Your task to perform on an android device: uninstall "YouTube Kids" Image 0: 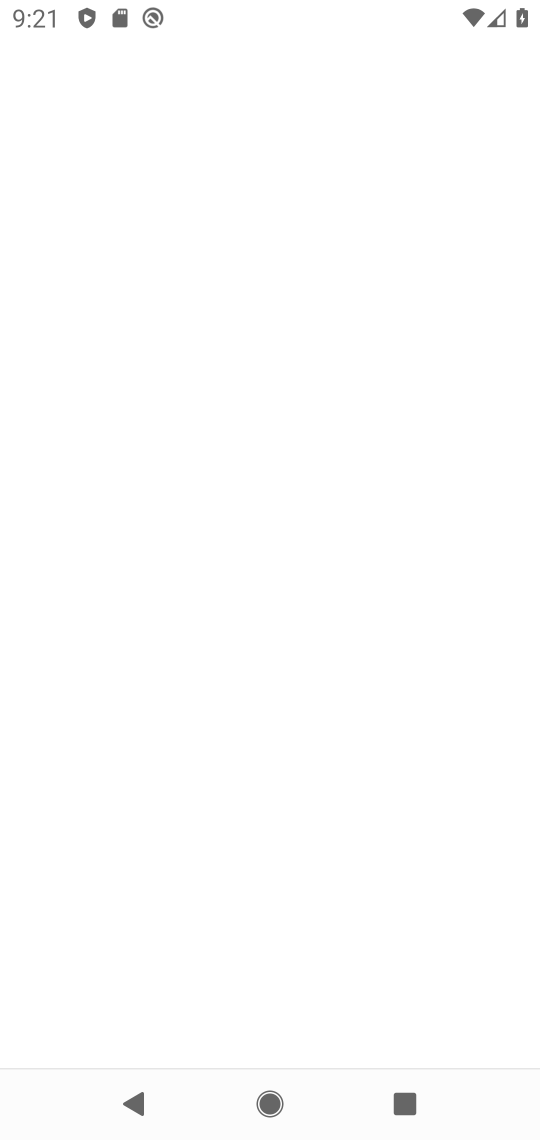
Step 0: press home button
Your task to perform on an android device: uninstall "YouTube Kids" Image 1: 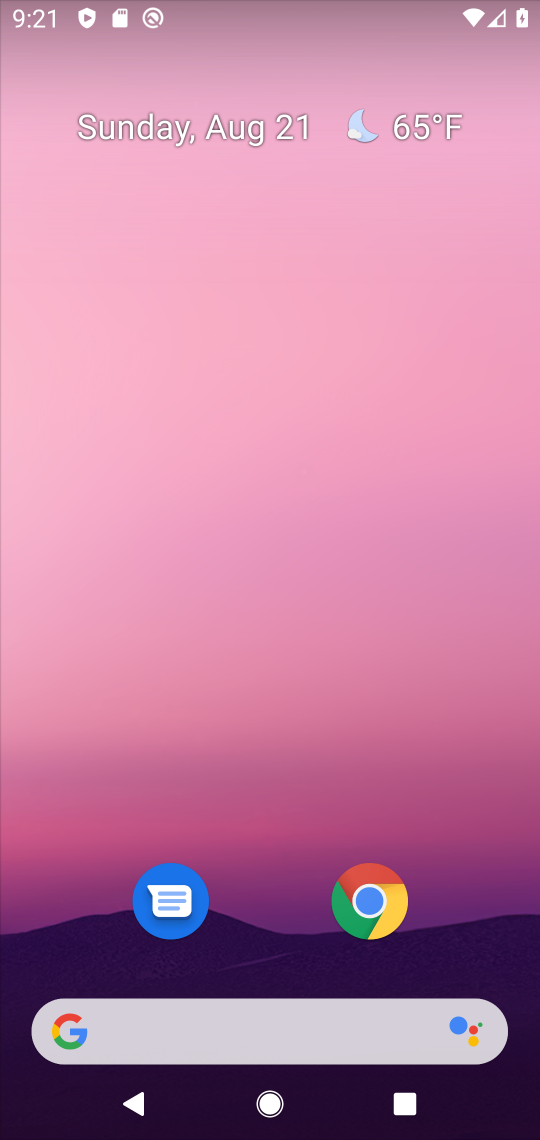
Step 1: drag from (453, 812) to (506, 108)
Your task to perform on an android device: uninstall "YouTube Kids" Image 2: 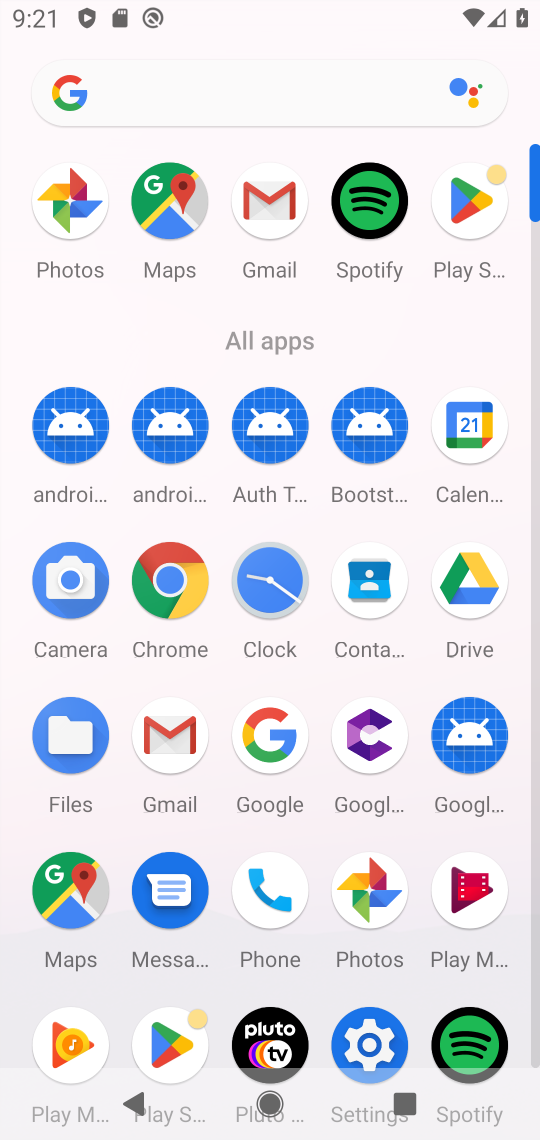
Step 2: click (486, 201)
Your task to perform on an android device: uninstall "YouTube Kids" Image 3: 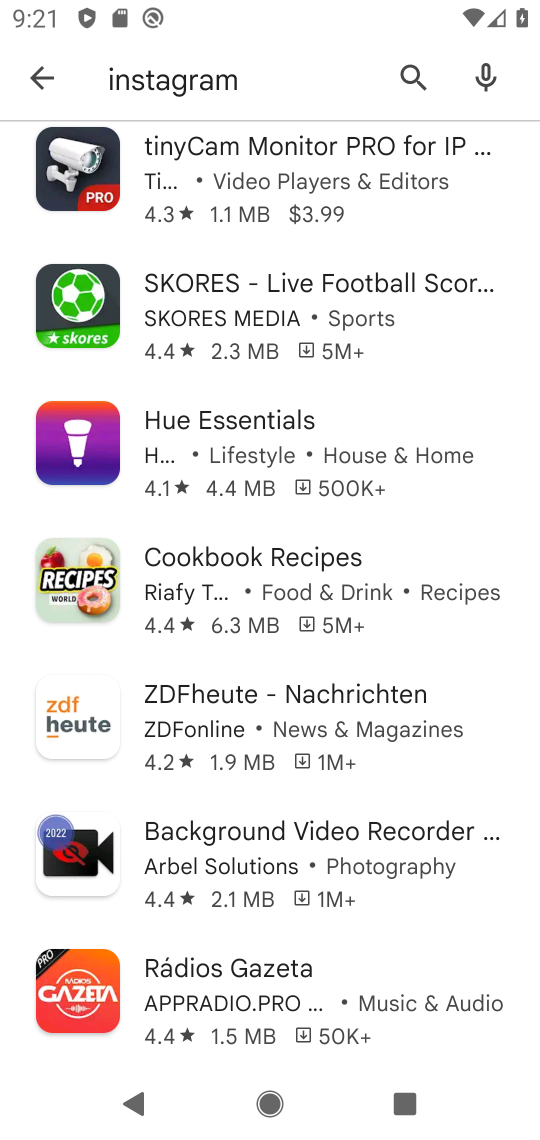
Step 3: press back button
Your task to perform on an android device: uninstall "YouTube Kids" Image 4: 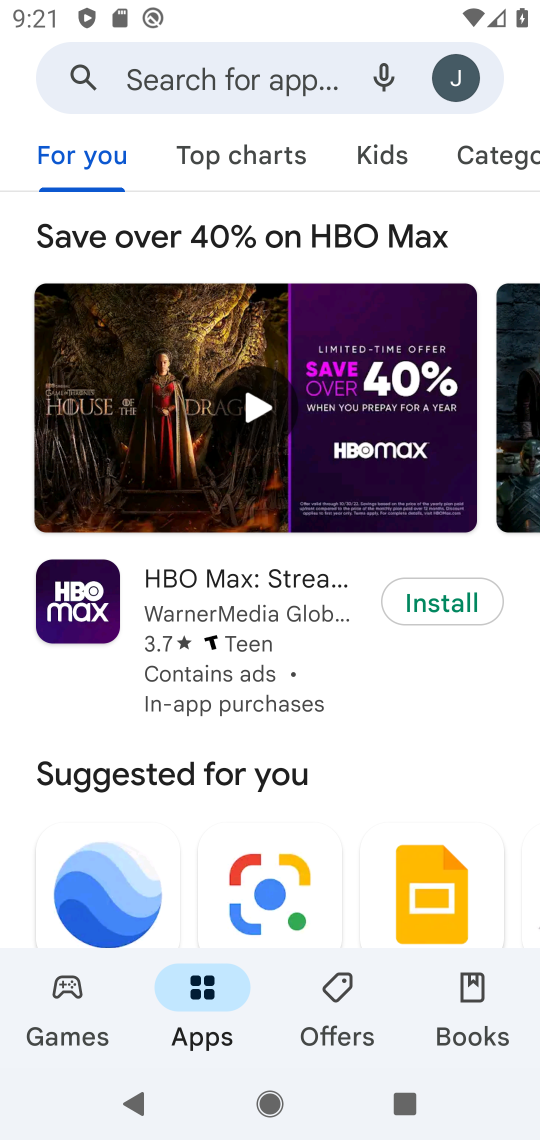
Step 4: click (272, 81)
Your task to perform on an android device: uninstall "YouTube Kids" Image 5: 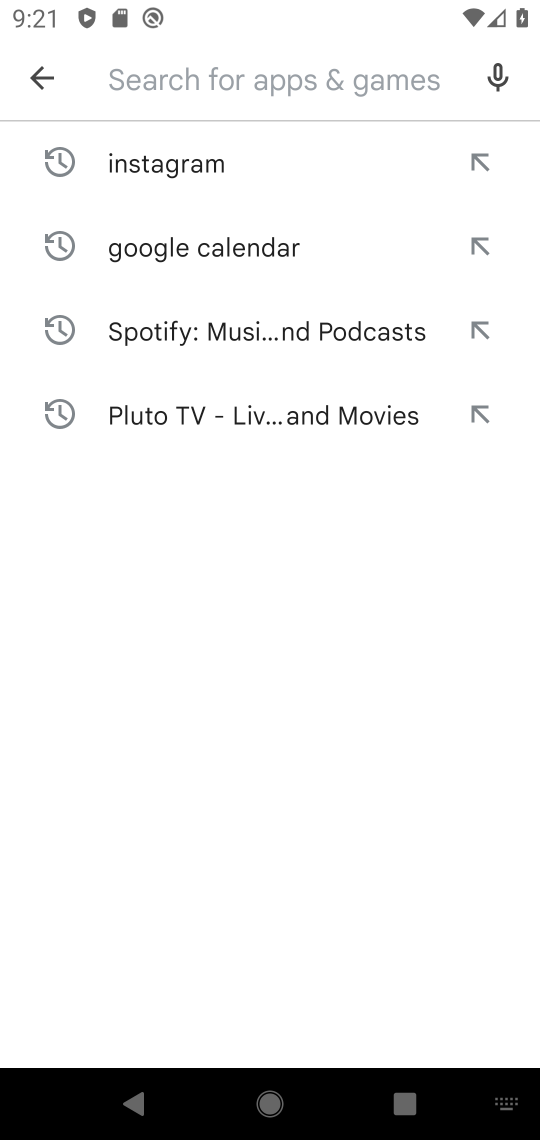
Step 5: press enter
Your task to perform on an android device: uninstall "YouTube Kids" Image 6: 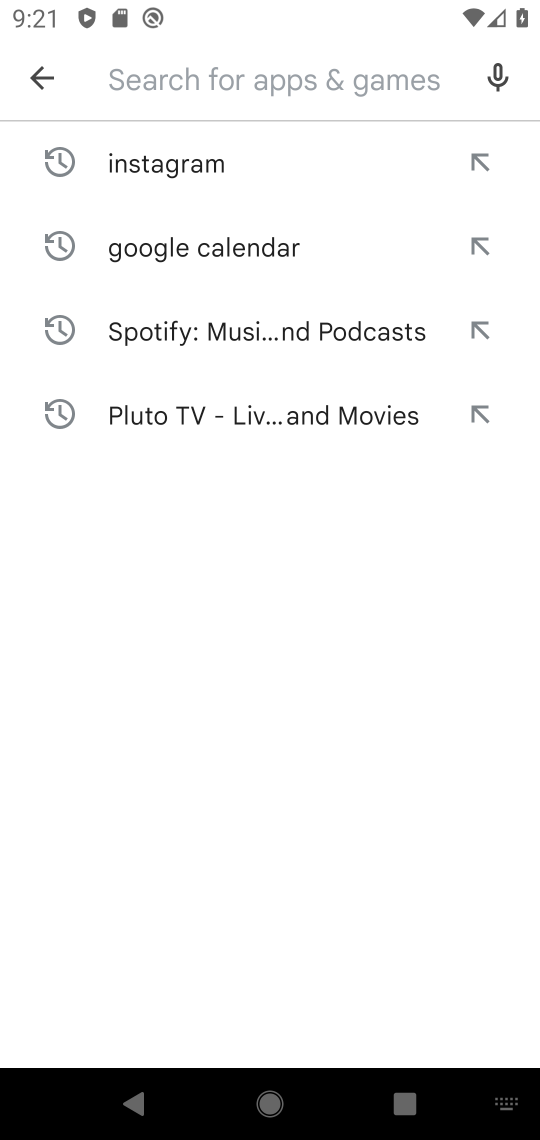
Step 6: type "youtube kids"
Your task to perform on an android device: uninstall "YouTube Kids" Image 7: 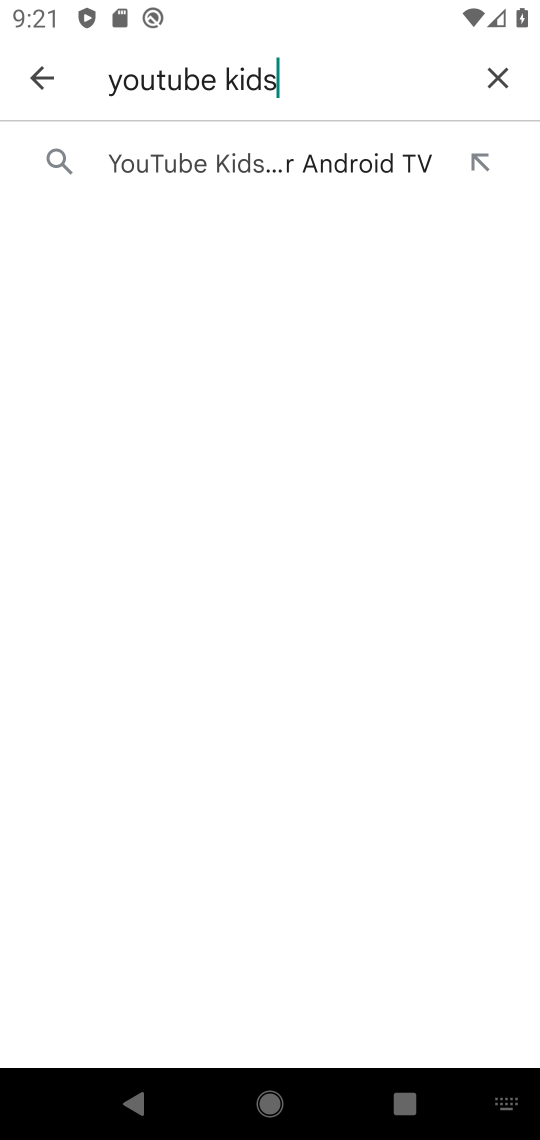
Step 7: click (307, 147)
Your task to perform on an android device: uninstall "YouTube Kids" Image 8: 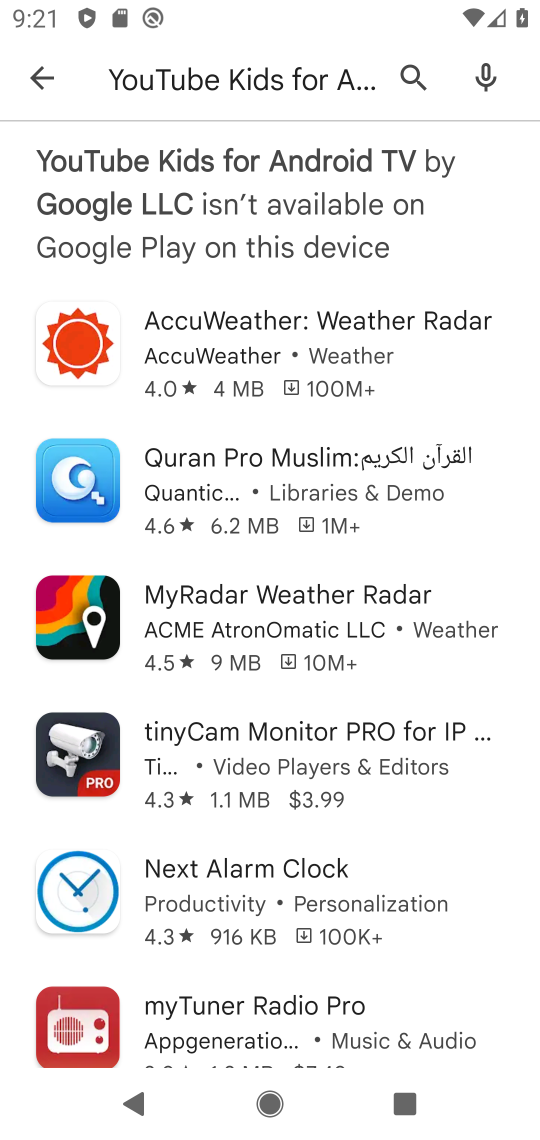
Step 8: task complete